Your task to perform on an android device: Search for Mexican restaurants on Maps Image 0: 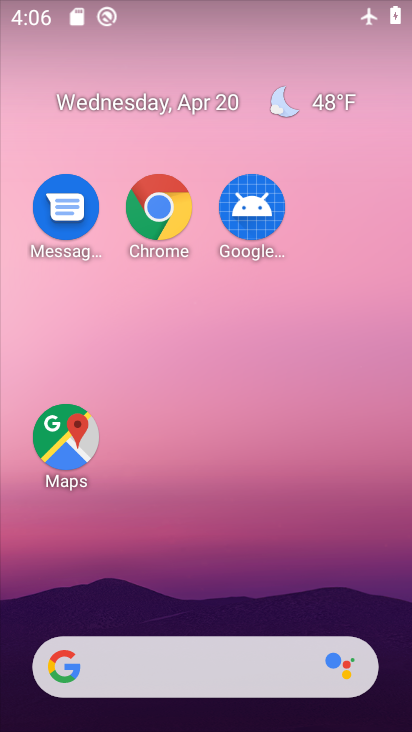
Step 0: drag from (286, 520) to (336, 229)
Your task to perform on an android device: Search for Mexican restaurants on Maps Image 1: 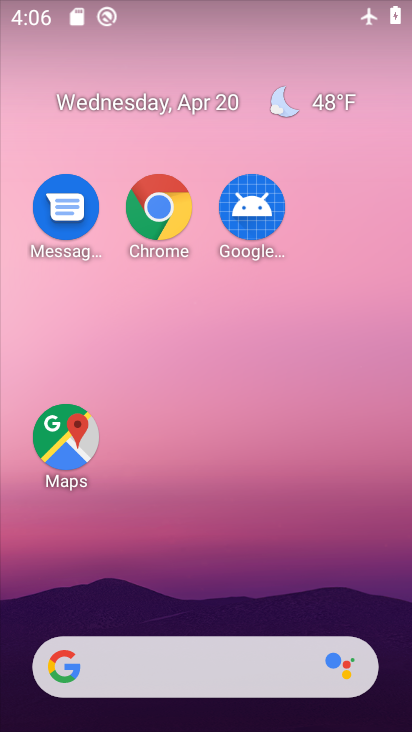
Step 1: drag from (264, 514) to (388, 229)
Your task to perform on an android device: Search for Mexican restaurants on Maps Image 2: 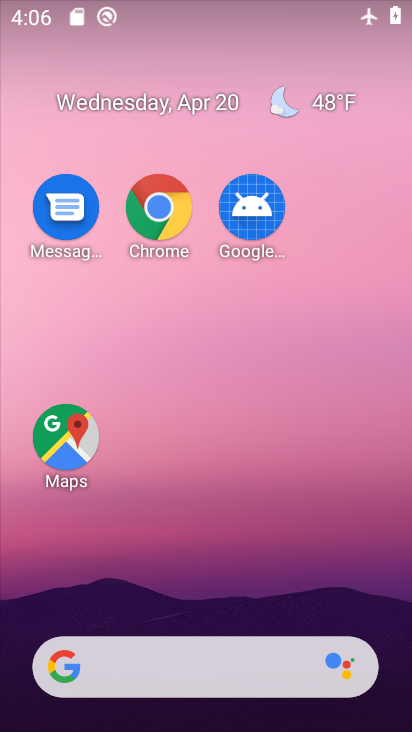
Step 2: click (84, 447)
Your task to perform on an android device: Search for Mexican restaurants on Maps Image 3: 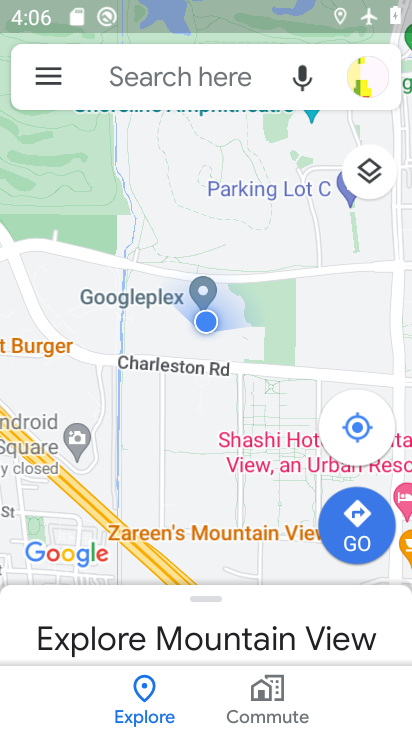
Step 3: click (223, 91)
Your task to perform on an android device: Search for Mexican restaurants on Maps Image 4: 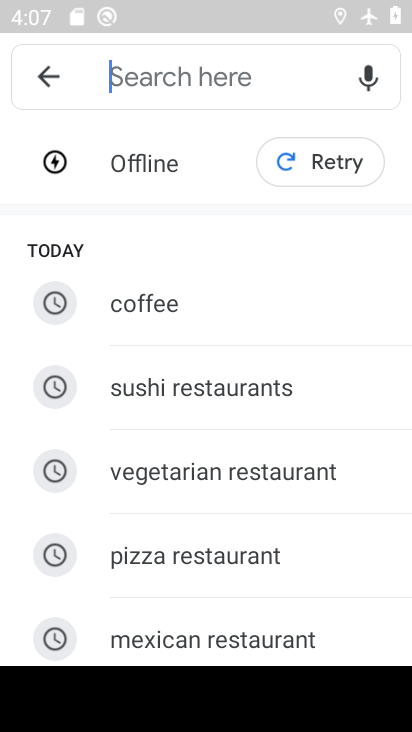
Step 4: type "mexican restaurants"
Your task to perform on an android device: Search for Mexican restaurants on Maps Image 5: 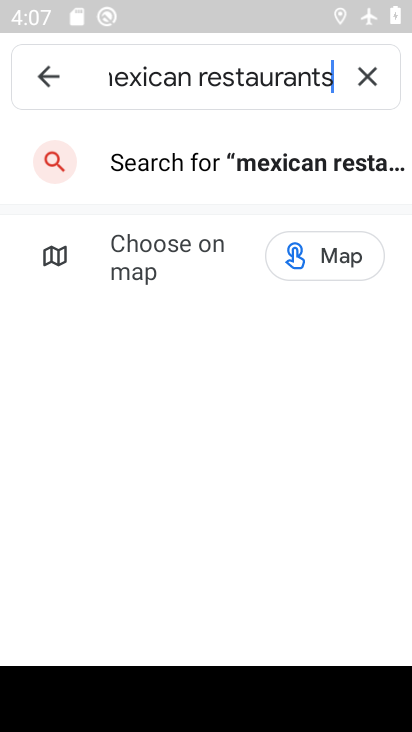
Step 5: task complete